Your task to perform on an android device: turn on bluetooth scan Image 0: 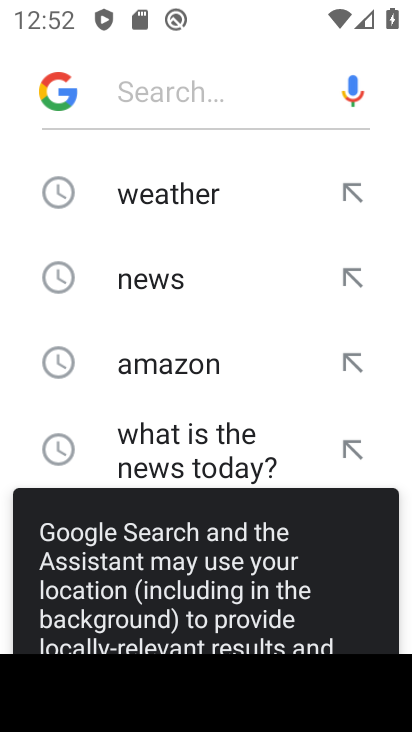
Step 0: press home button
Your task to perform on an android device: turn on bluetooth scan Image 1: 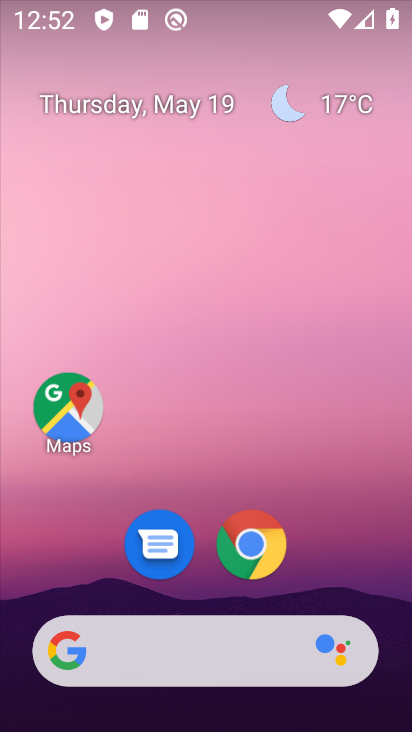
Step 1: drag from (207, 683) to (213, 219)
Your task to perform on an android device: turn on bluetooth scan Image 2: 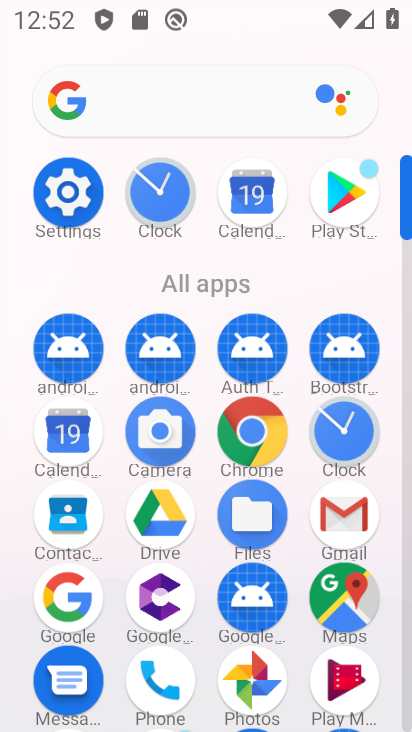
Step 2: click (66, 206)
Your task to perform on an android device: turn on bluetooth scan Image 3: 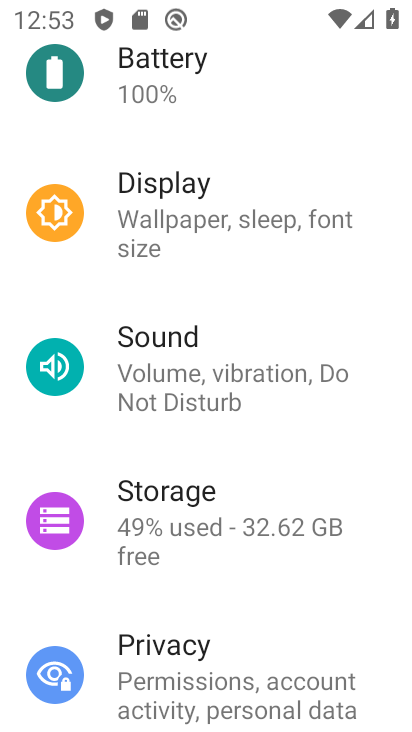
Step 3: drag from (217, 286) to (256, 640)
Your task to perform on an android device: turn on bluetooth scan Image 4: 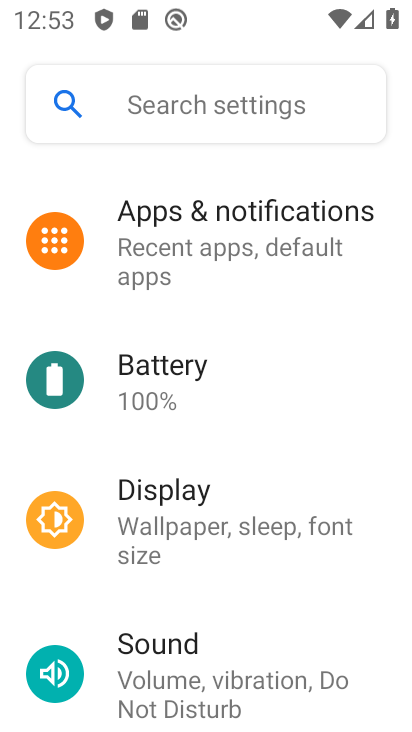
Step 4: drag from (267, 662) to (271, 356)
Your task to perform on an android device: turn on bluetooth scan Image 5: 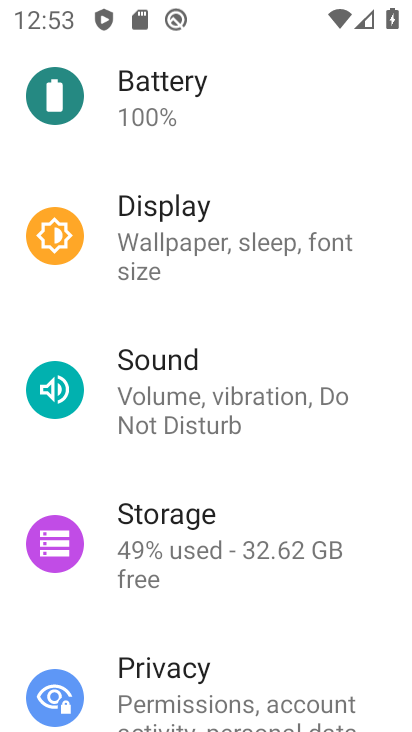
Step 5: drag from (249, 646) to (250, 353)
Your task to perform on an android device: turn on bluetooth scan Image 6: 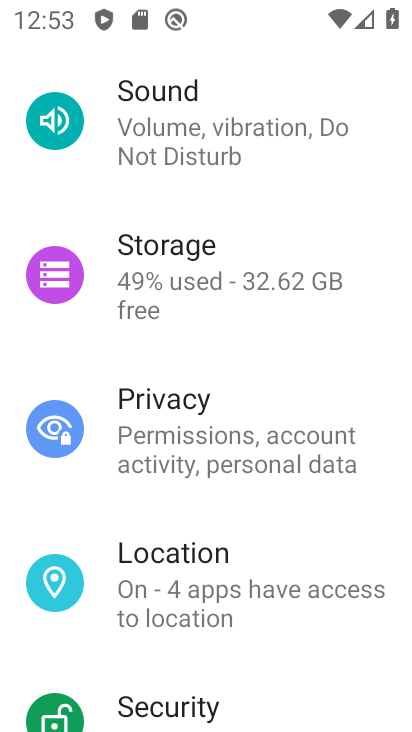
Step 6: click (192, 578)
Your task to perform on an android device: turn on bluetooth scan Image 7: 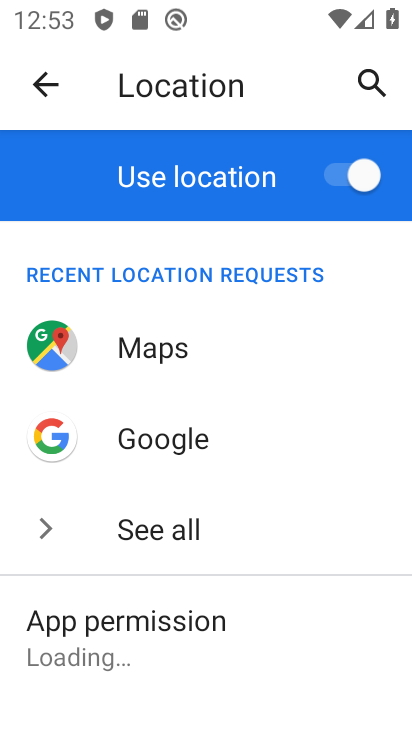
Step 7: drag from (202, 629) to (207, 343)
Your task to perform on an android device: turn on bluetooth scan Image 8: 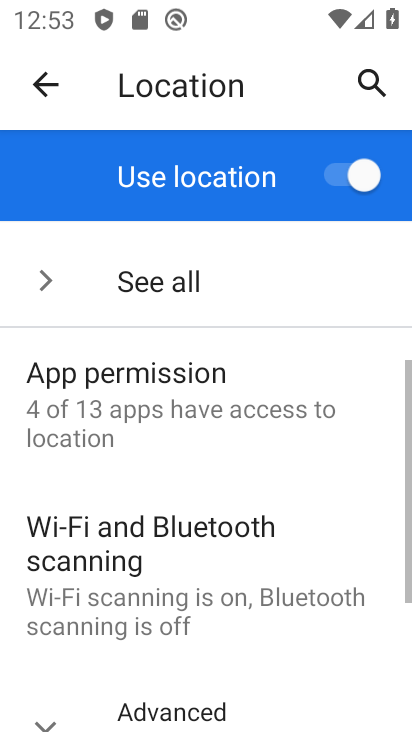
Step 8: click (116, 514)
Your task to perform on an android device: turn on bluetooth scan Image 9: 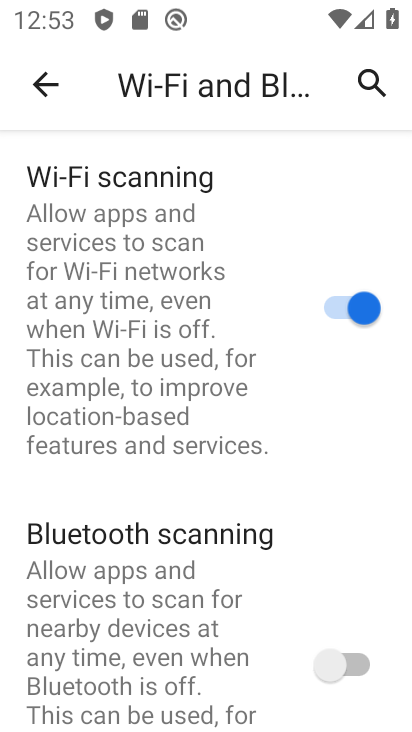
Step 9: click (360, 660)
Your task to perform on an android device: turn on bluetooth scan Image 10: 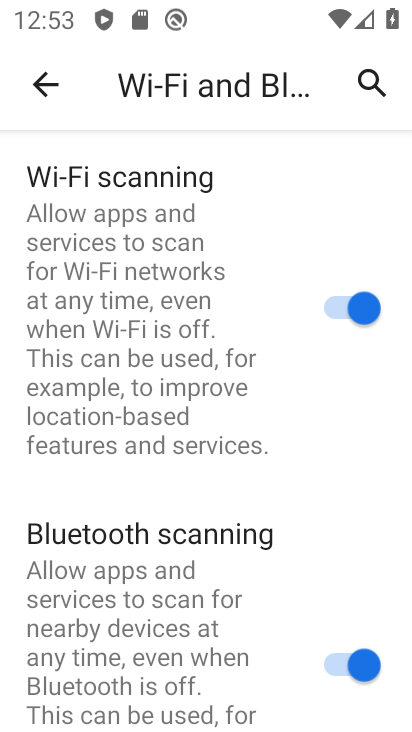
Step 10: task complete